Your task to perform on an android device: turn notification dots on Image 0: 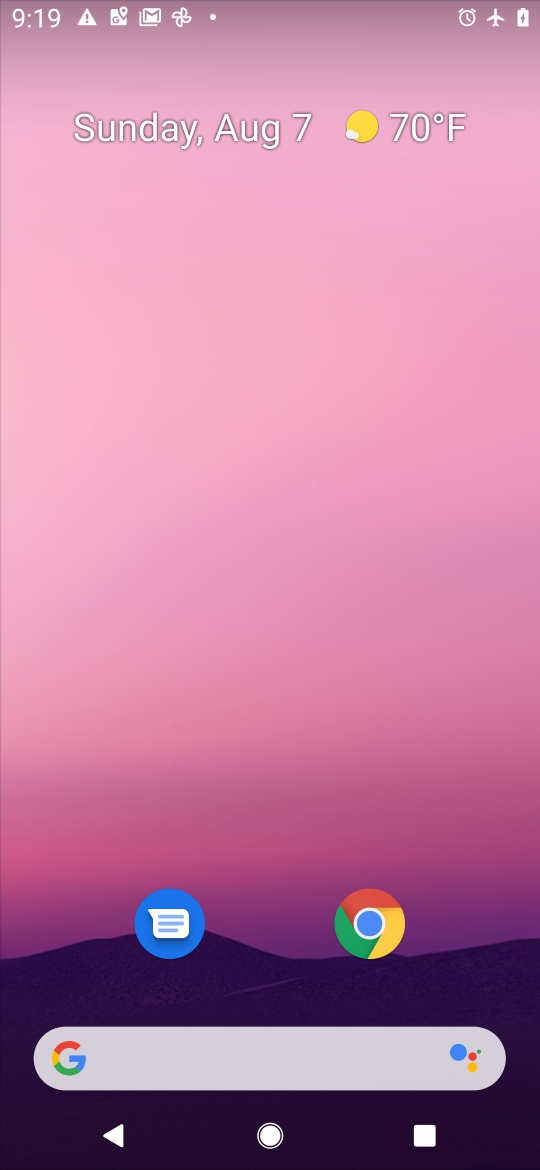
Step 0: drag from (486, 960) to (342, 85)
Your task to perform on an android device: turn notification dots on Image 1: 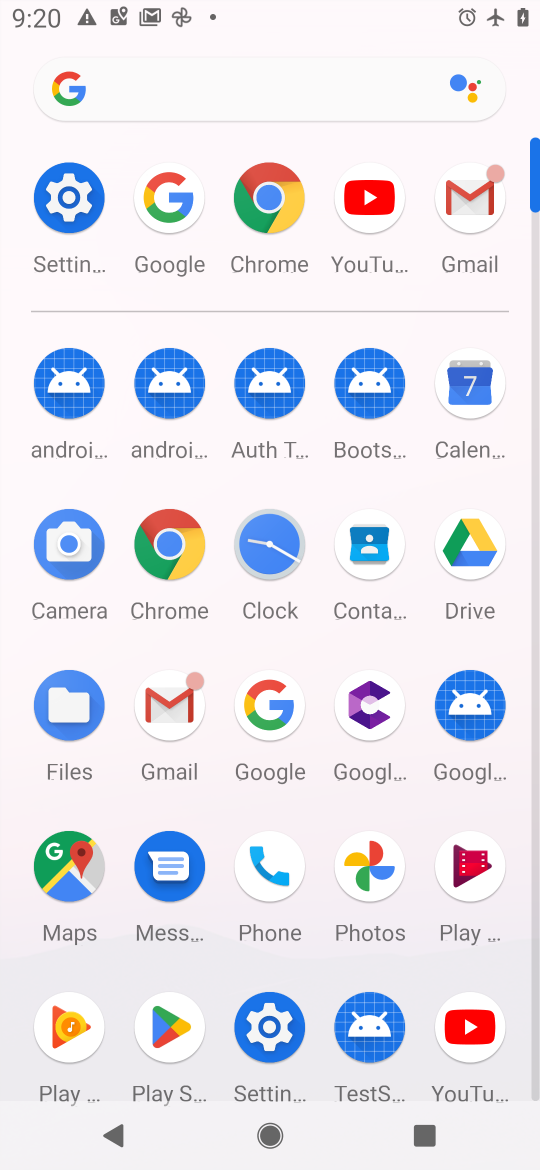
Step 1: click (291, 1049)
Your task to perform on an android device: turn notification dots on Image 2: 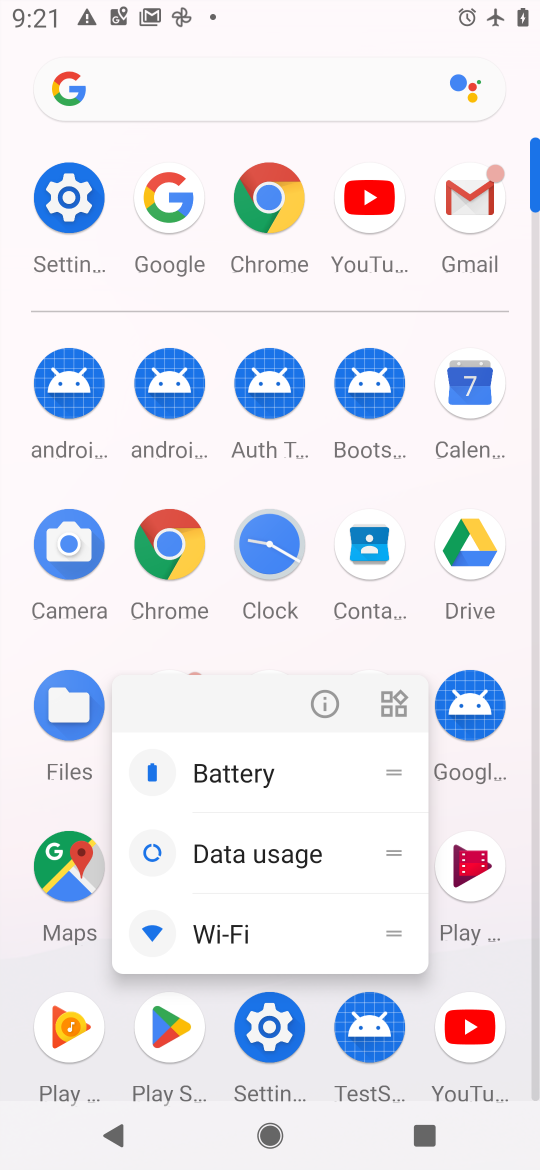
Step 2: click (291, 1049)
Your task to perform on an android device: turn notification dots on Image 3: 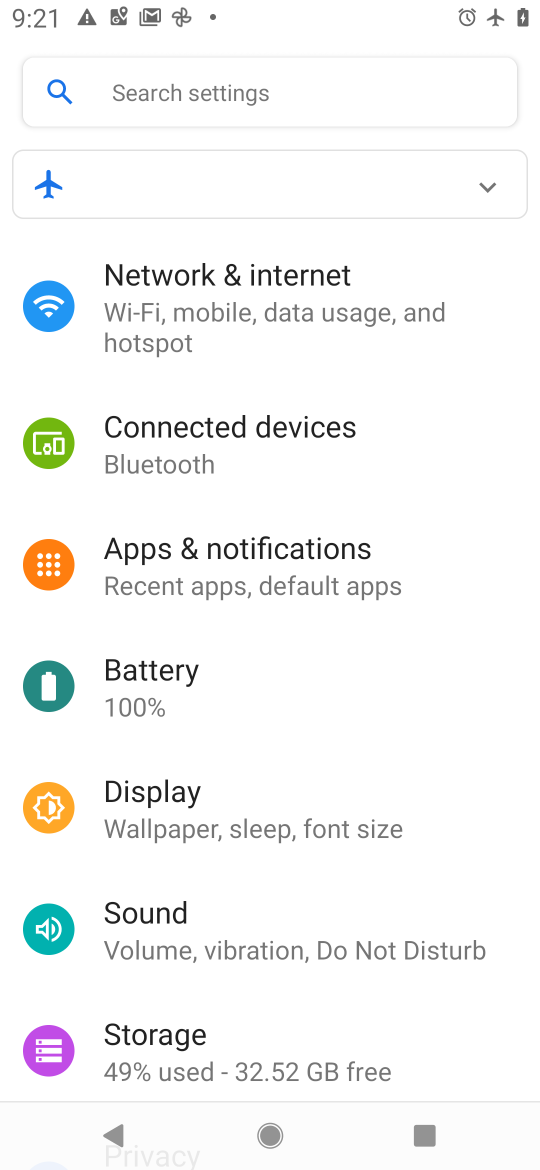
Step 3: click (154, 551)
Your task to perform on an android device: turn notification dots on Image 4: 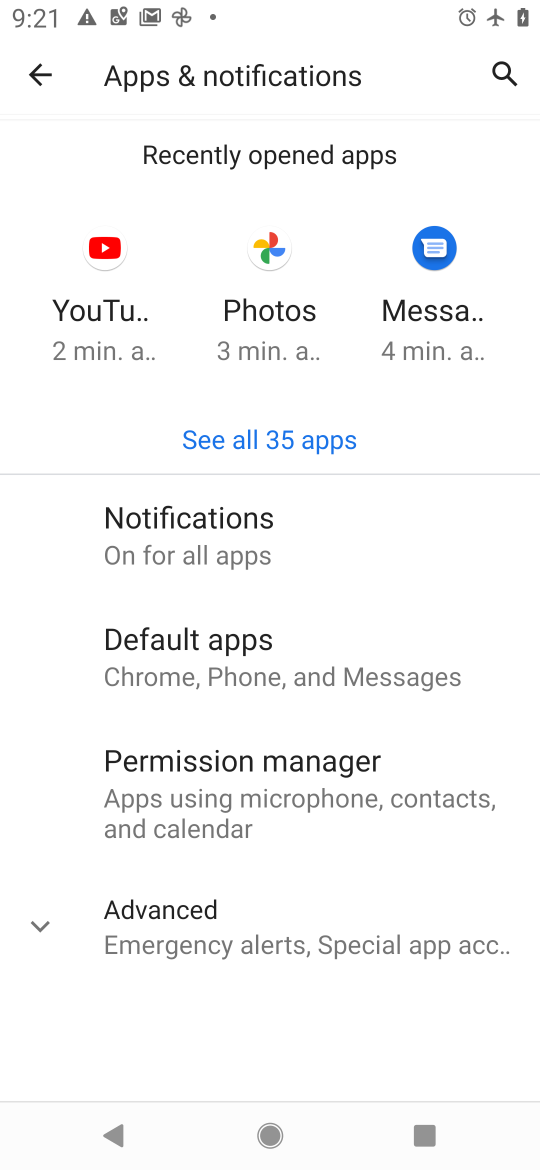
Step 4: click (151, 549)
Your task to perform on an android device: turn notification dots on Image 5: 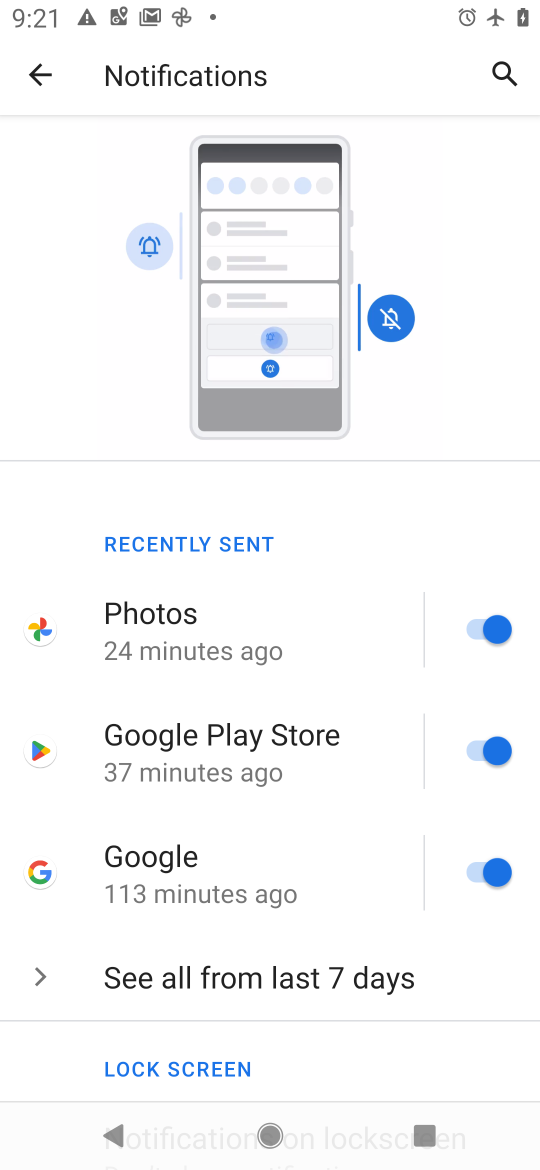
Step 5: drag from (163, 1040) to (191, 24)
Your task to perform on an android device: turn notification dots on Image 6: 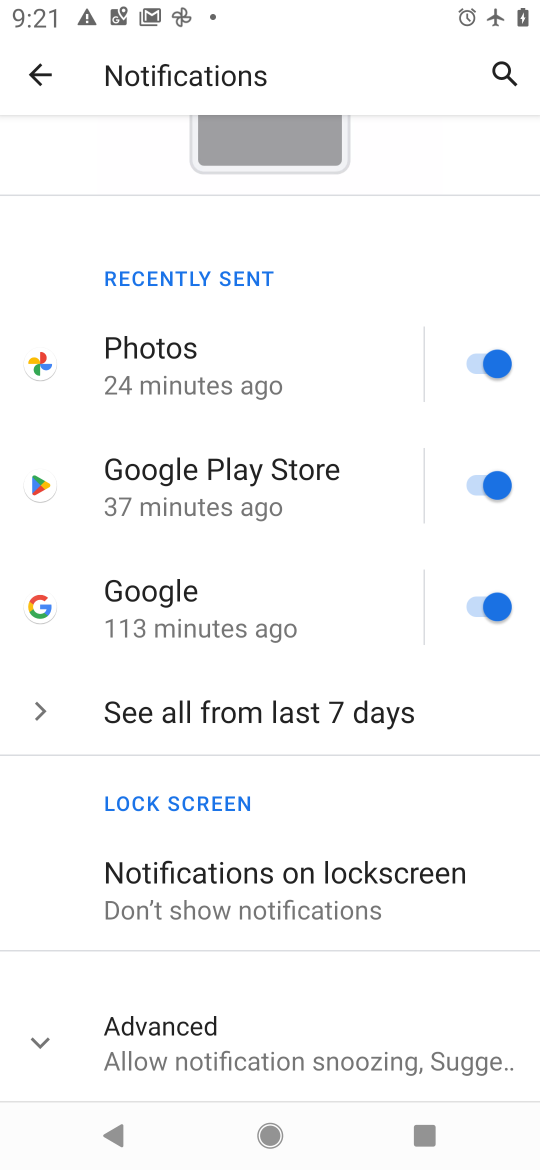
Step 6: click (151, 1043)
Your task to perform on an android device: turn notification dots on Image 7: 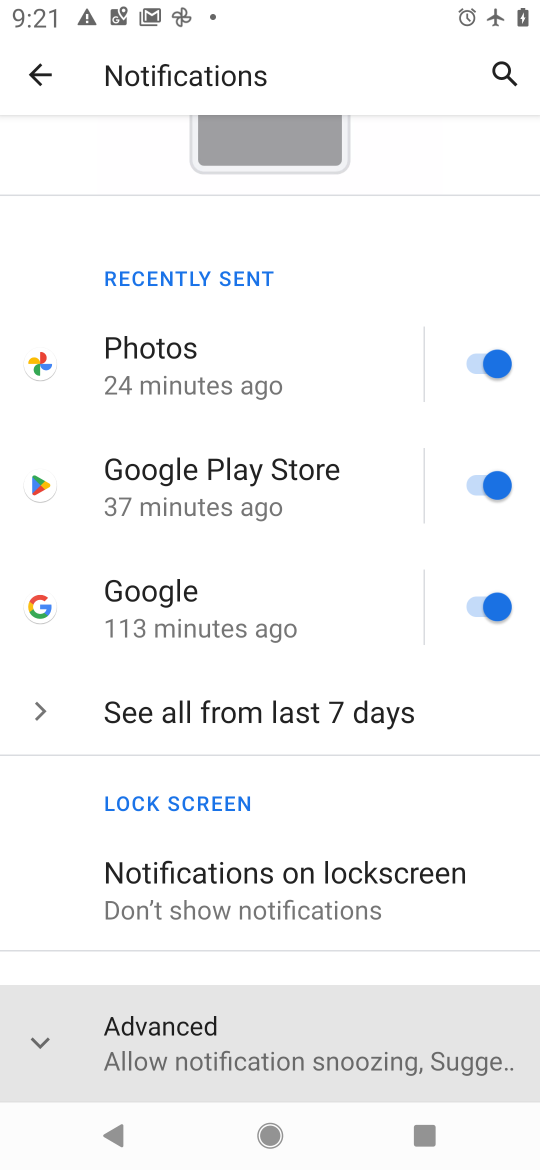
Step 7: task complete